Your task to perform on an android device: move an email to a new category in the gmail app Image 0: 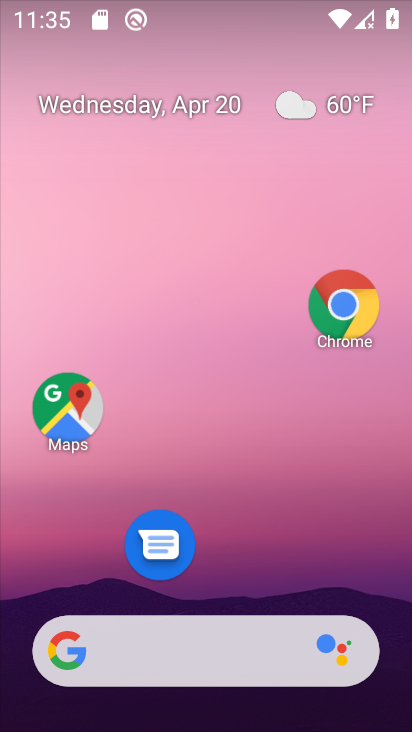
Step 0: drag from (236, 536) to (249, 434)
Your task to perform on an android device: move an email to a new category in the gmail app Image 1: 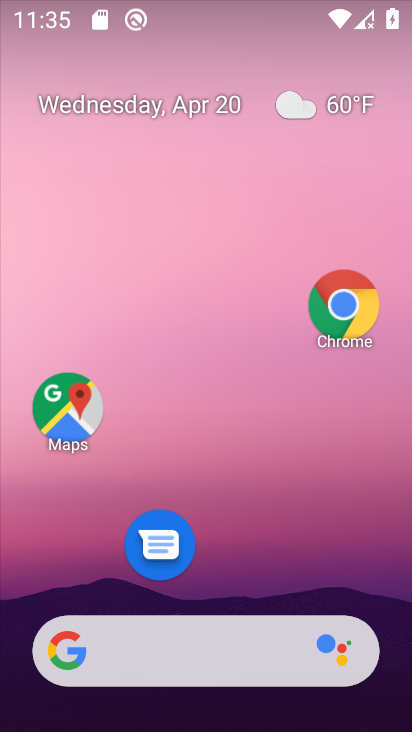
Step 1: drag from (288, 275) to (345, 42)
Your task to perform on an android device: move an email to a new category in the gmail app Image 2: 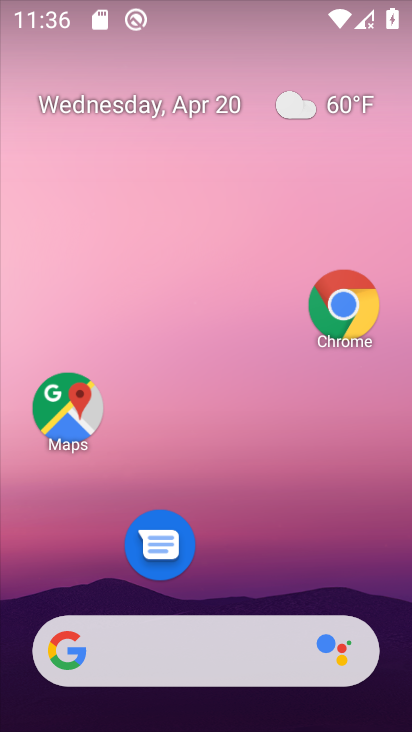
Step 2: drag from (215, 615) to (180, 9)
Your task to perform on an android device: move an email to a new category in the gmail app Image 3: 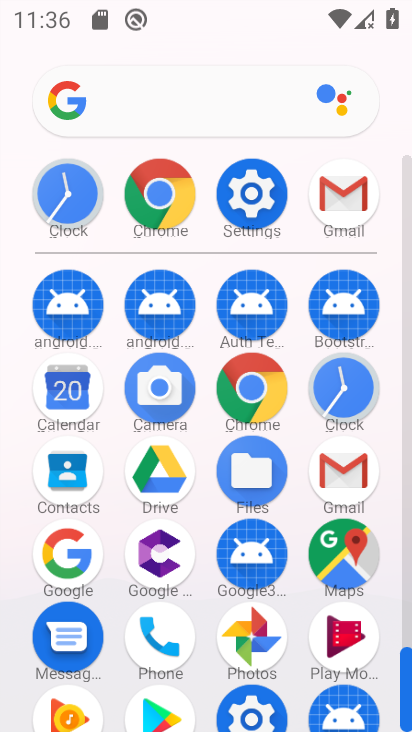
Step 3: click (346, 481)
Your task to perform on an android device: move an email to a new category in the gmail app Image 4: 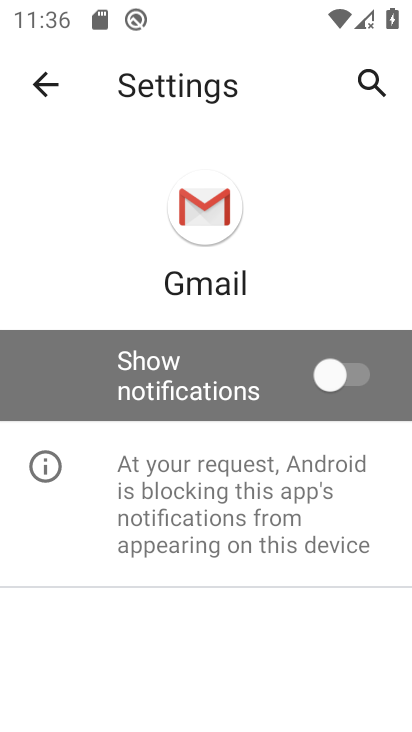
Step 4: click (43, 85)
Your task to perform on an android device: move an email to a new category in the gmail app Image 5: 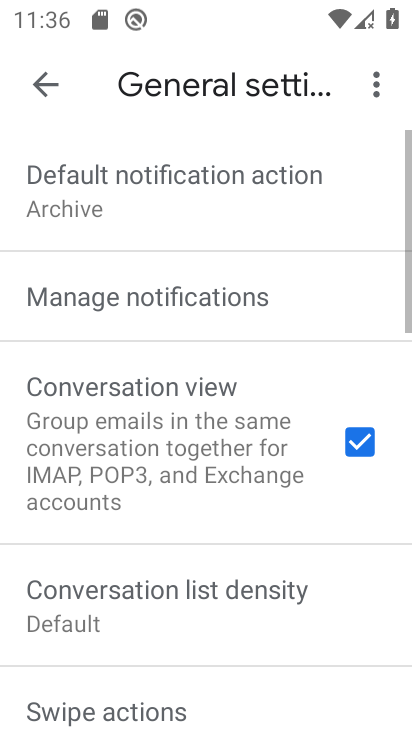
Step 5: click (43, 85)
Your task to perform on an android device: move an email to a new category in the gmail app Image 6: 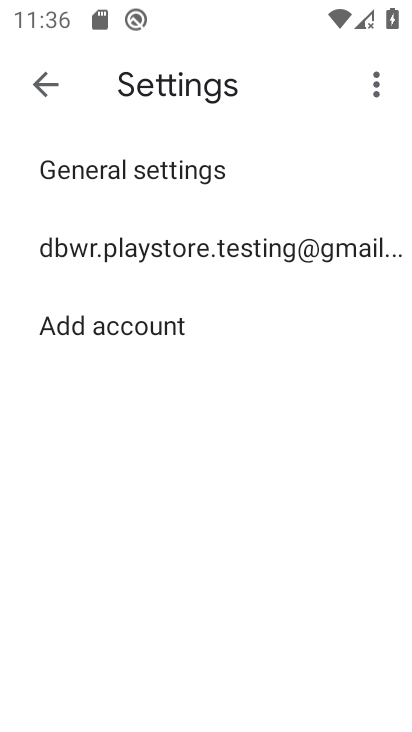
Step 6: click (43, 85)
Your task to perform on an android device: move an email to a new category in the gmail app Image 7: 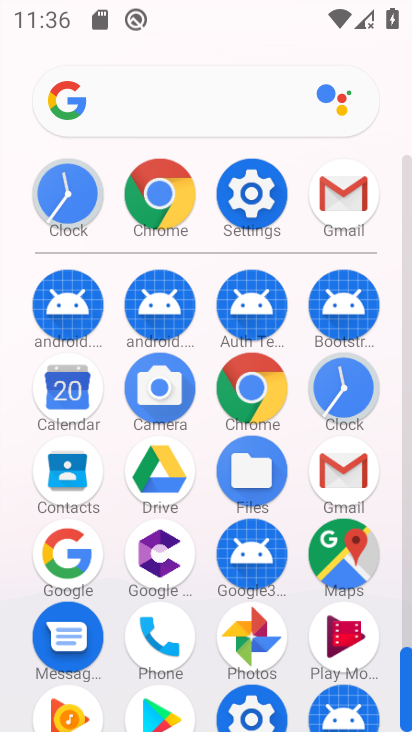
Step 7: click (338, 461)
Your task to perform on an android device: move an email to a new category in the gmail app Image 8: 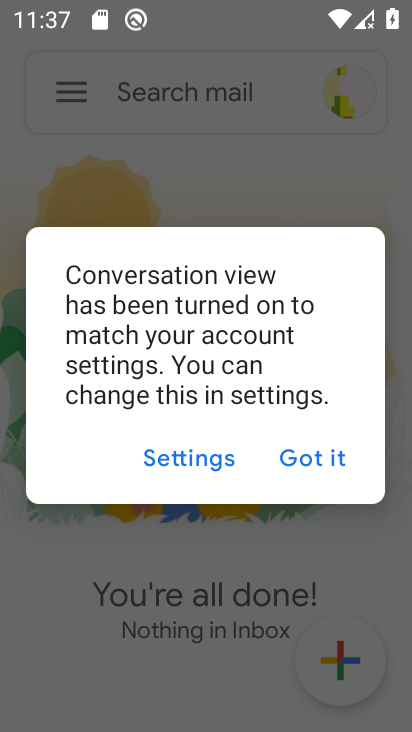
Step 8: click (323, 458)
Your task to perform on an android device: move an email to a new category in the gmail app Image 9: 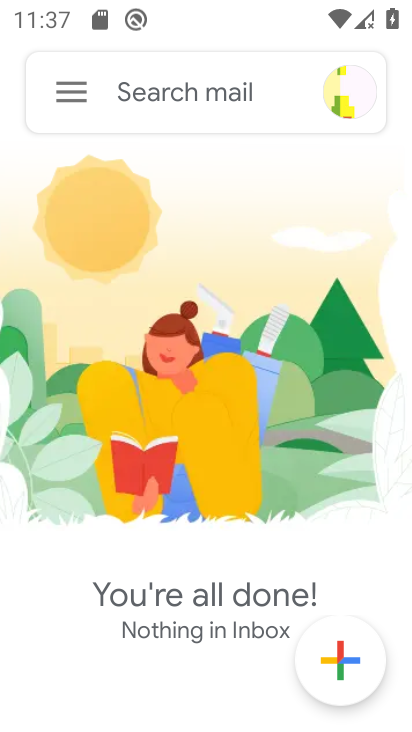
Step 9: click (70, 106)
Your task to perform on an android device: move an email to a new category in the gmail app Image 10: 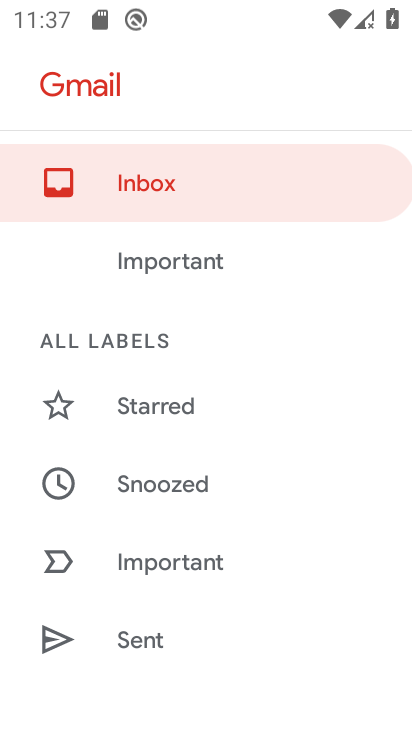
Step 10: drag from (176, 581) to (205, 379)
Your task to perform on an android device: move an email to a new category in the gmail app Image 11: 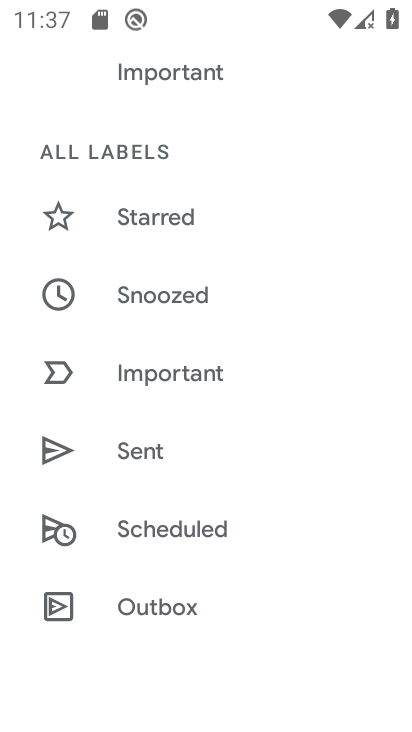
Step 11: drag from (178, 520) to (219, 285)
Your task to perform on an android device: move an email to a new category in the gmail app Image 12: 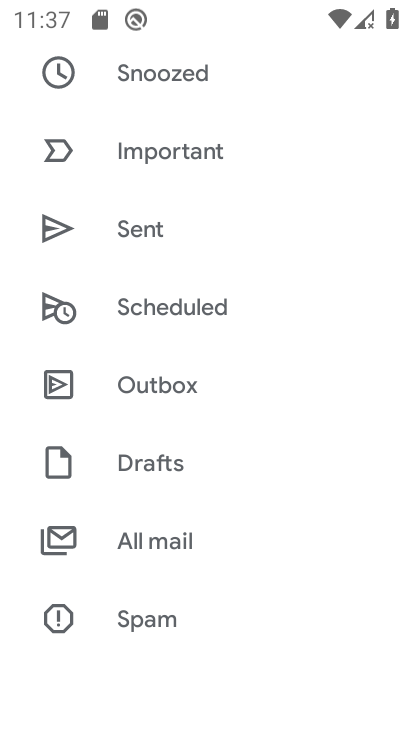
Step 12: drag from (186, 535) to (192, 442)
Your task to perform on an android device: move an email to a new category in the gmail app Image 13: 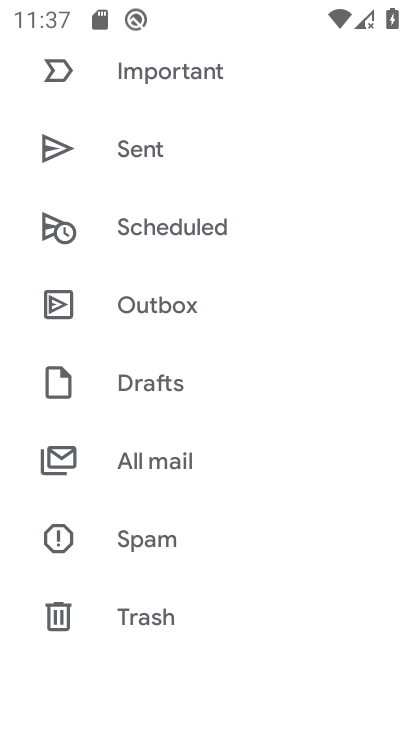
Step 13: click (201, 452)
Your task to perform on an android device: move an email to a new category in the gmail app Image 14: 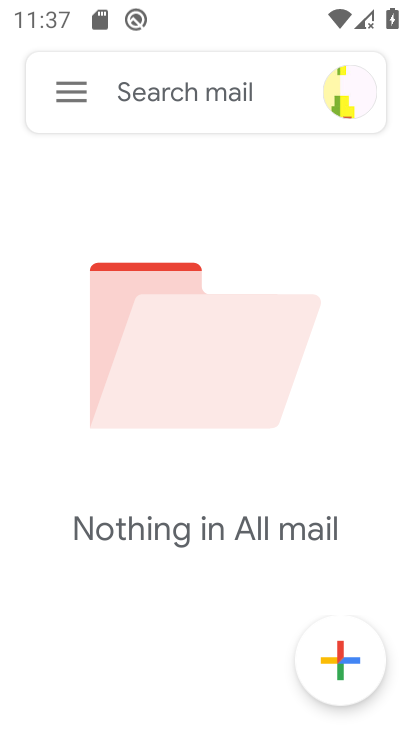
Step 14: task complete